Your task to perform on an android device: all mails in gmail Image 0: 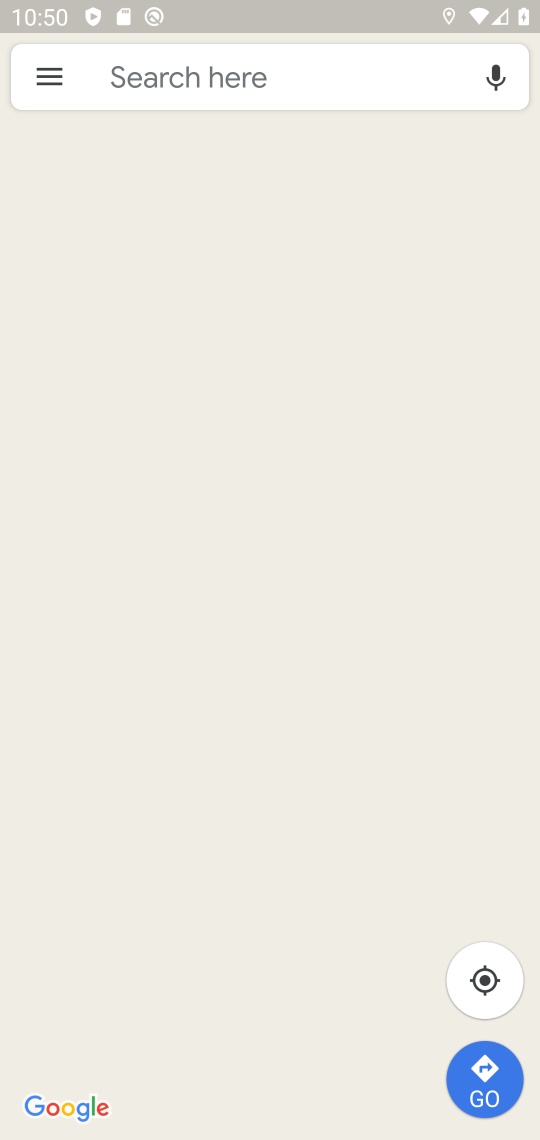
Step 0: press home button
Your task to perform on an android device: all mails in gmail Image 1: 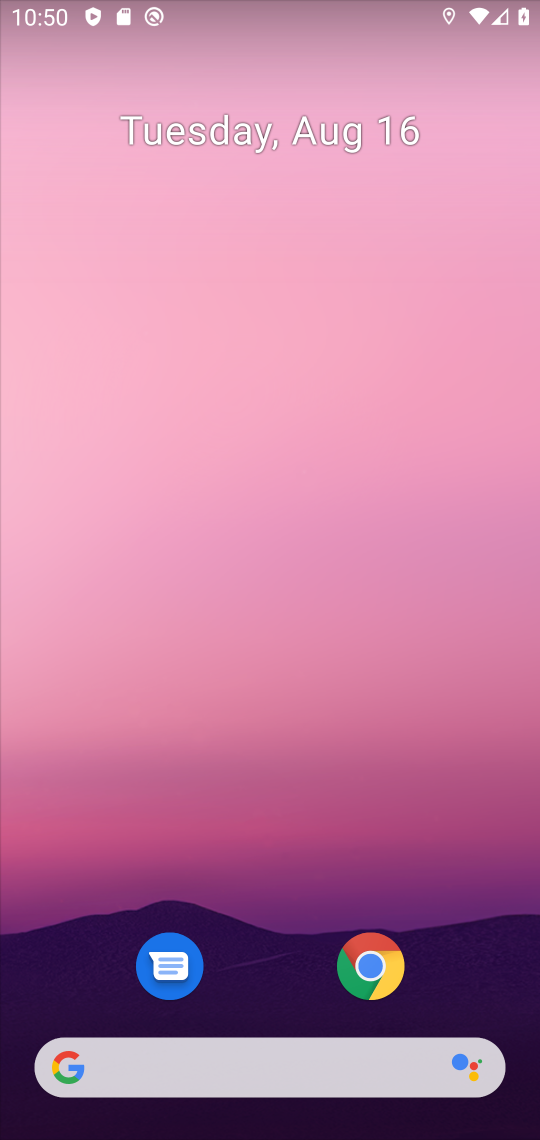
Step 1: drag from (239, 657) to (263, 10)
Your task to perform on an android device: all mails in gmail Image 2: 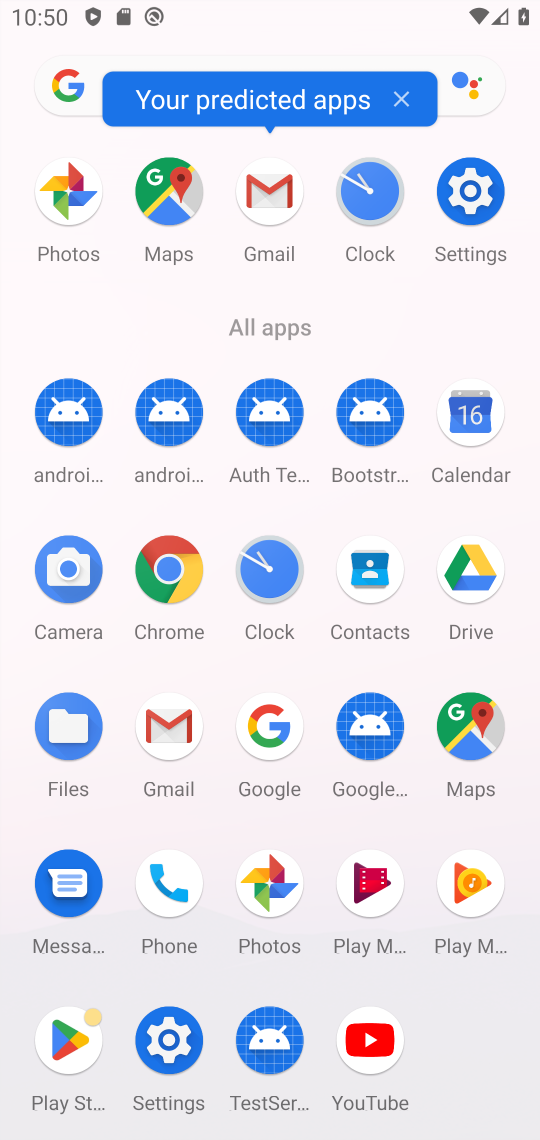
Step 2: click (188, 745)
Your task to perform on an android device: all mails in gmail Image 3: 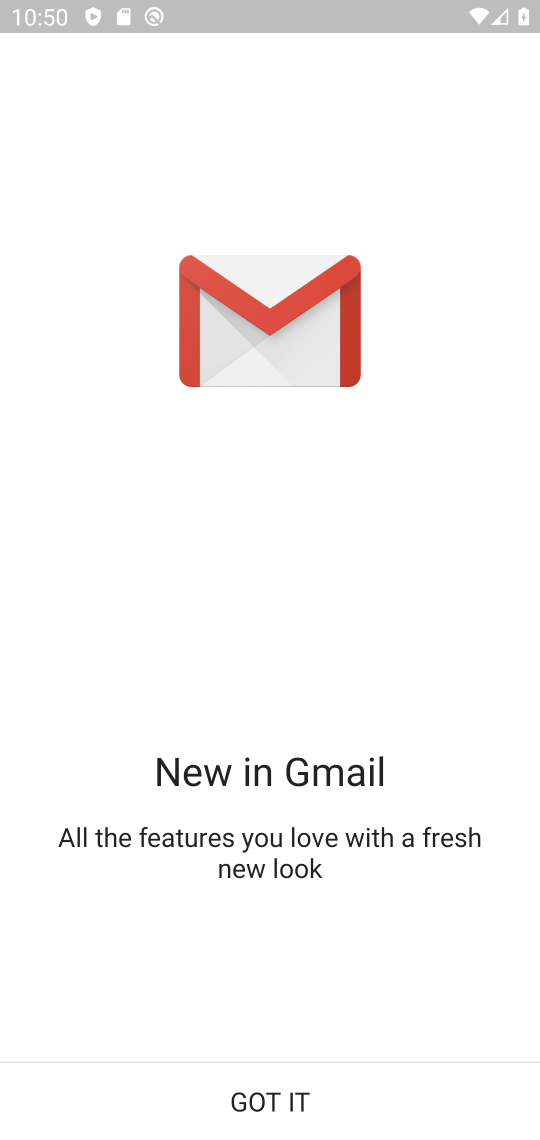
Step 3: click (280, 1096)
Your task to perform on an android device: all mails in gmail Image 4: 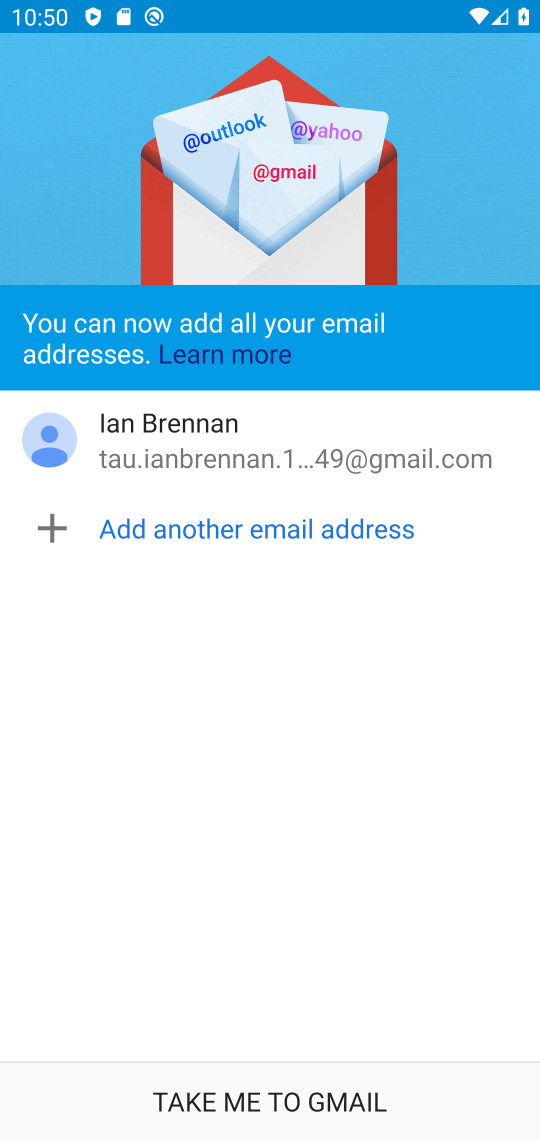
Step 4: click (228, 1095)
Your task to perform on an android device: all mails in gmail Image 5: 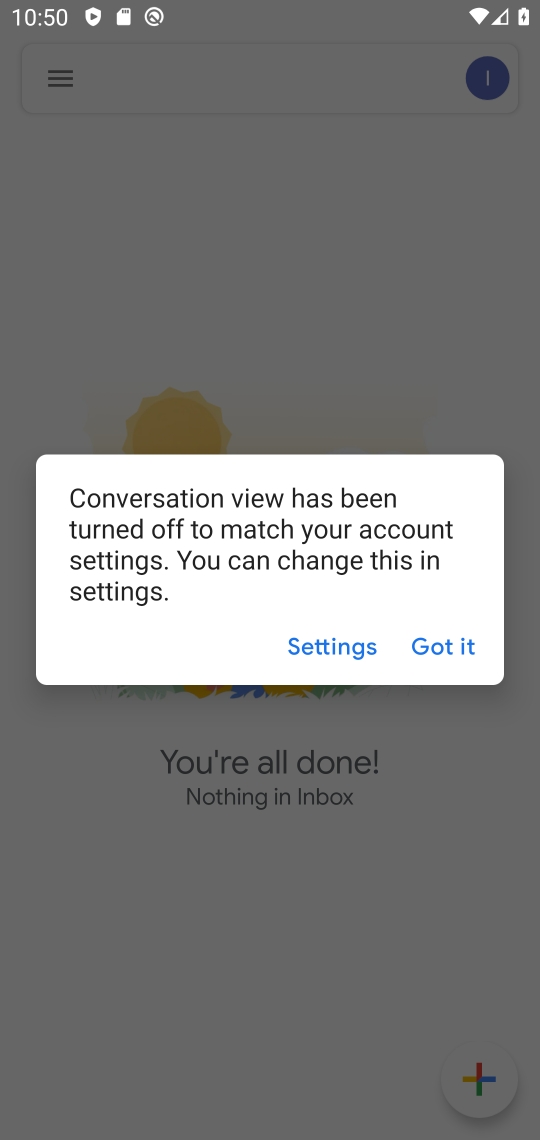
Step 5: click (444, 649)
Your task to perform on an android device: all mails in gmail Image 6: 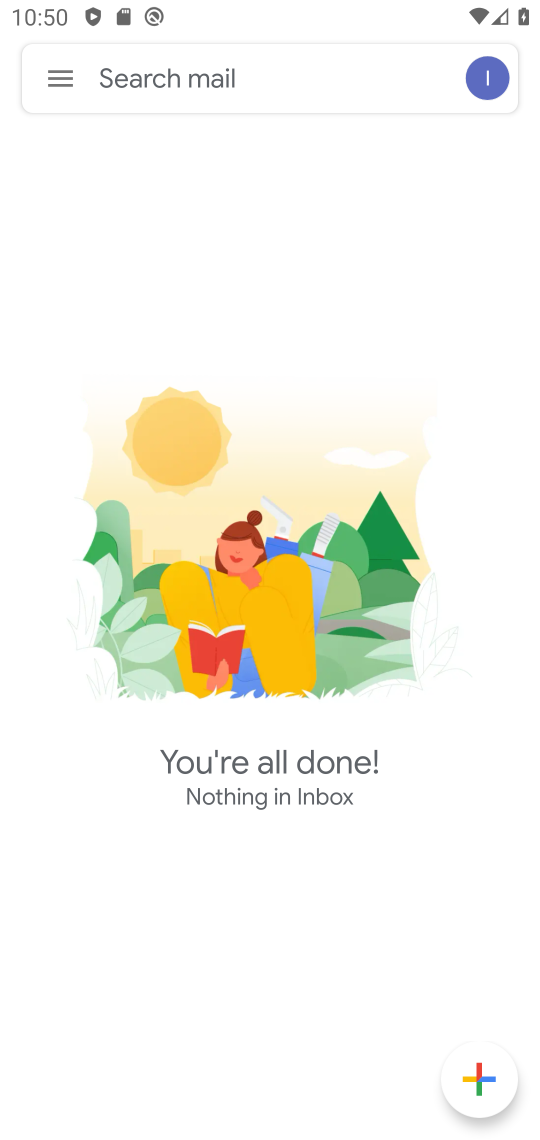
Step 6: task complete